Your task to perform on an android device: turn off location Image 0: 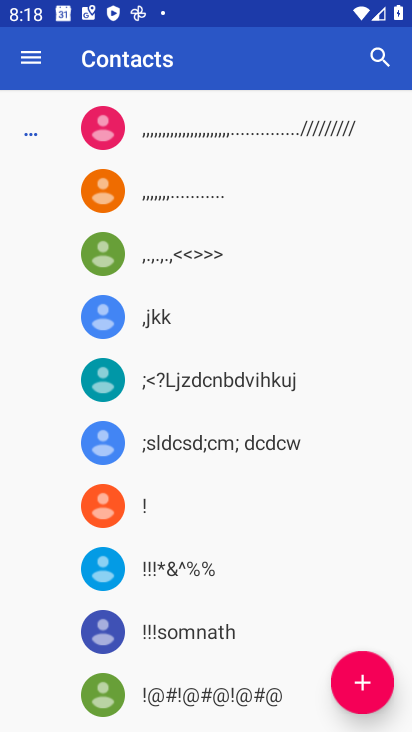
Step 0: press home button
Your task to perform on an android device: turn off location Image 1: 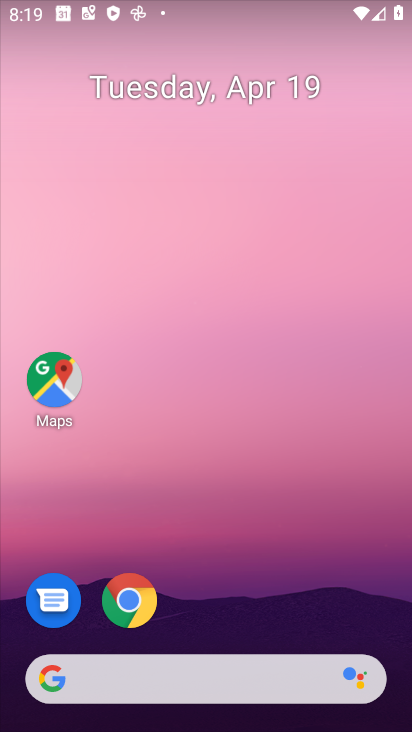
Step 1: drag from (302, 608) to (286, 77)
Your task to perform on an android device: turn off location Image 2: 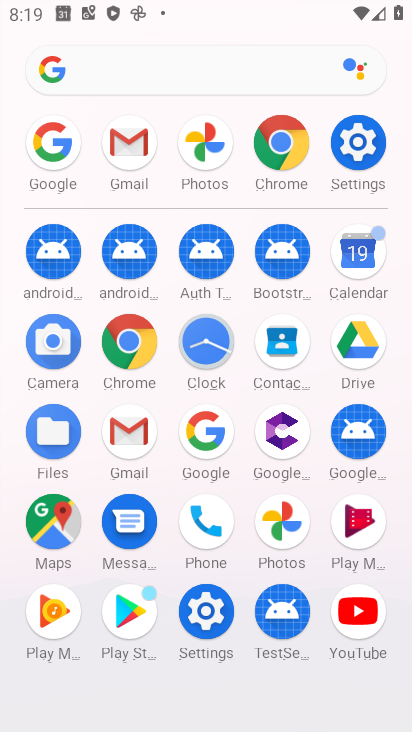
Step 2: click (368, 135)
Your task to perform on an android device: turn off location Image 3: 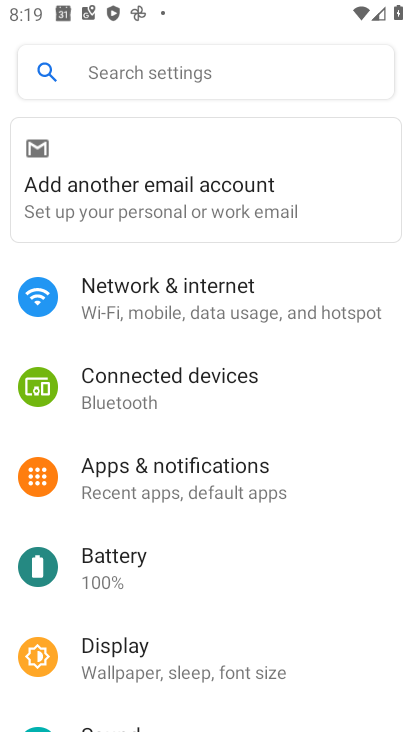
Step 3: drag from (148, 618) to (288, 162)
Your task to perform on an android device: turn off location Image 4: 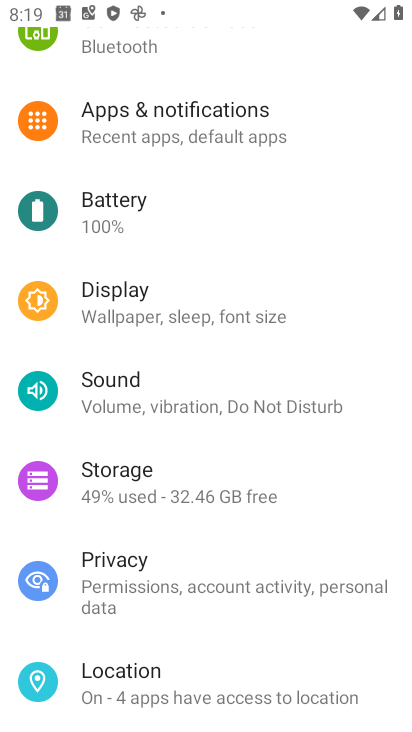
Step 4: drag from (159, 586) to (273, 178)
Your task to perform on an android device: turn off location Image 5: 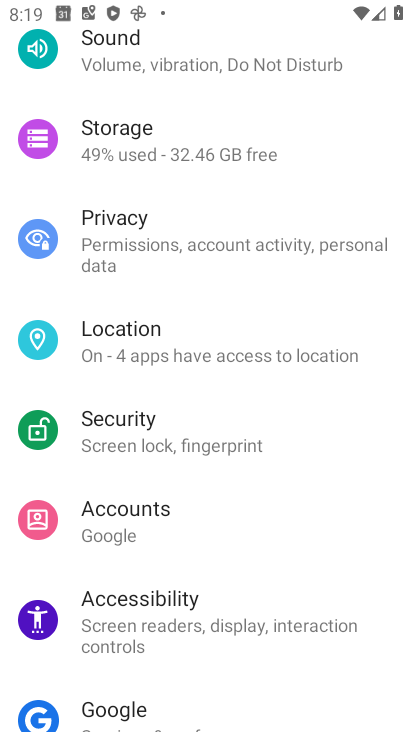
Step 5: click (163, 346)
Your task to perform on an android device: turn off location Image 6: 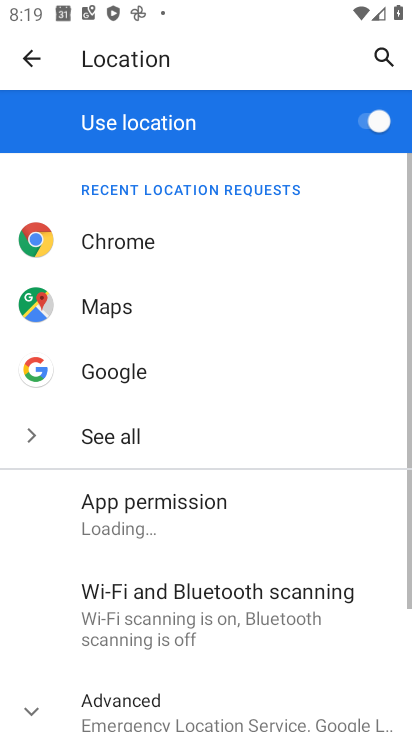
Step 6: click (335, 129)
Your task to perform on an android device: turn off location Image 7: 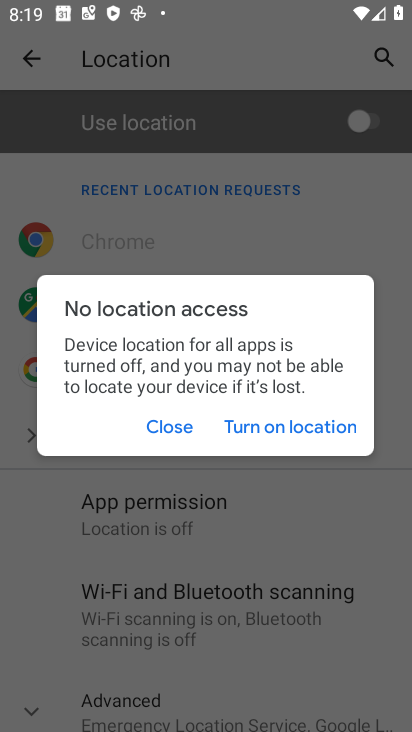
Step 7: task complete